Your task to perform on an android device: Turn on the flashlight Image 0: 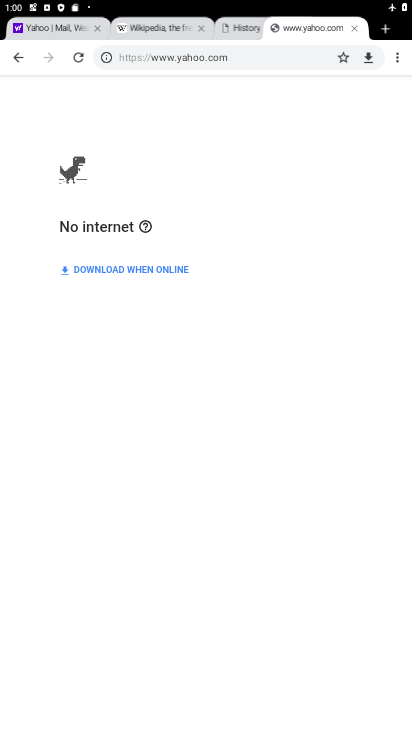
Step 0: press home button
Your task to perform on an android device: Turn on the flashlight Image 1: 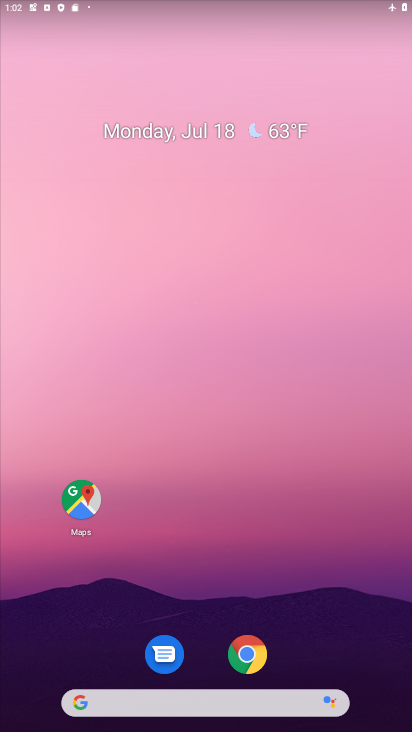
Step 1: drag from (212, 617) to (171, 203)
Your task to perform on an android device: Turn on the flashlight Image 2: 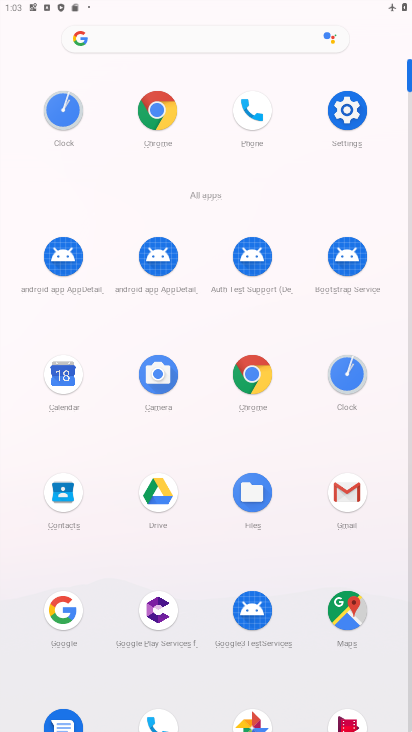
Step 2: click (344, 105)
Your task to perform on an android device: Turn on the flashlight Image 3: 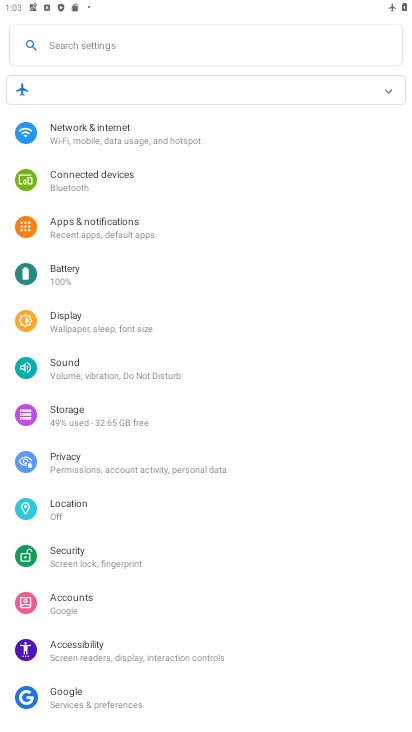
Step 3: task complete